Your task to perform on an android device: Do I have any events this weekend? Image 0: 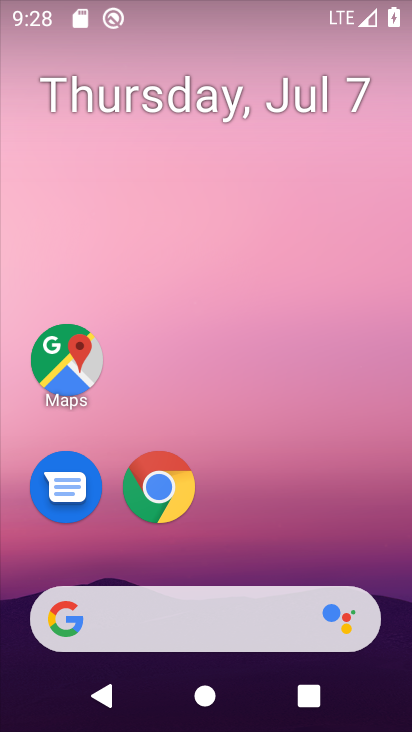
Step 0: drag from (339, 532) to (375, 182)
Your task to perform on an android device: Do I have any events this weekend? Image 1: 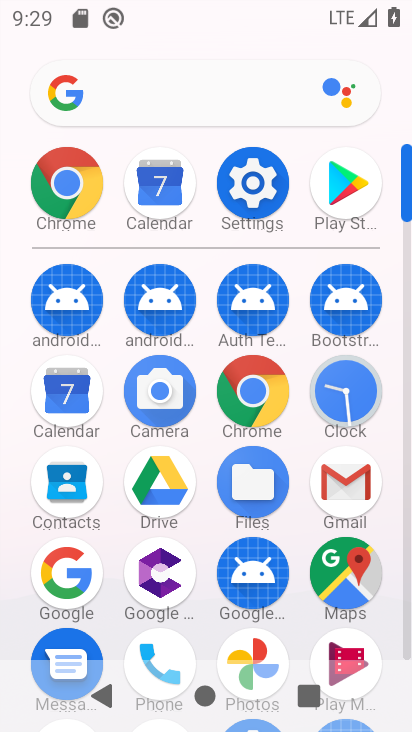
Step 1: click (88, 389)
Your task to perform on an android device: Do I have any events this weekend? Image 2: 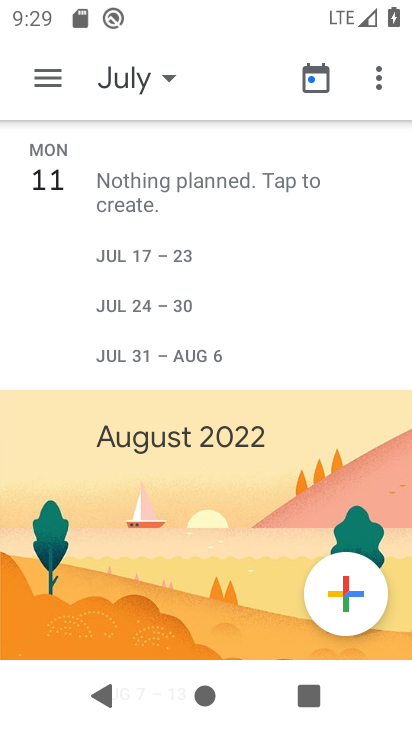
Step 2: click (162, 77)
Your task to perform on an android device: Do I have any events this weekend? Image 3: 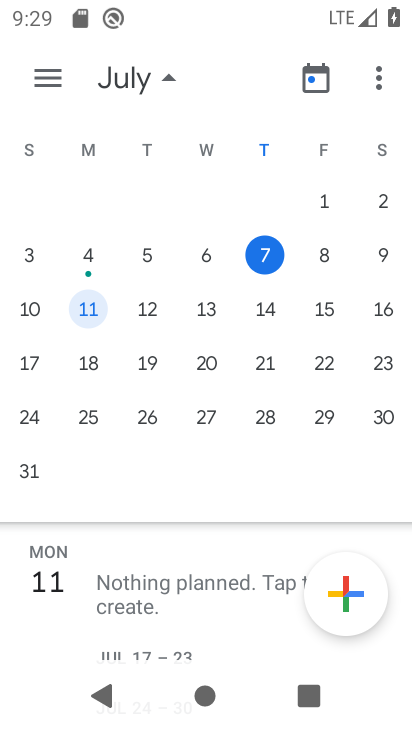
Step 3: click (379, 252)
Your task to perform on an android device: Do I have any events this weekend? Image 4: 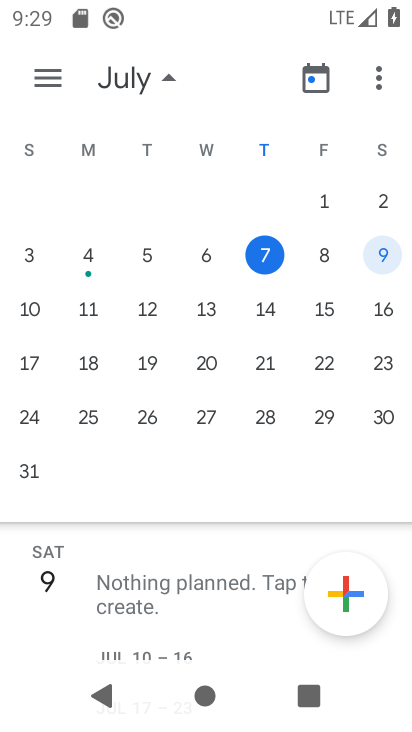
Step 4: task complete